Your task to perform on an android device: open chrome privacy settings Image 0: 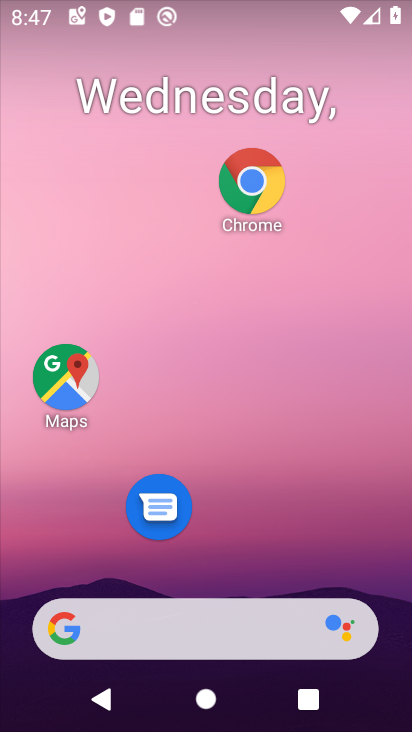
Step 0: drag from (336, 359) to (347, 173)
Your task to perform on an android device: open chrome privacy settings Image 1: 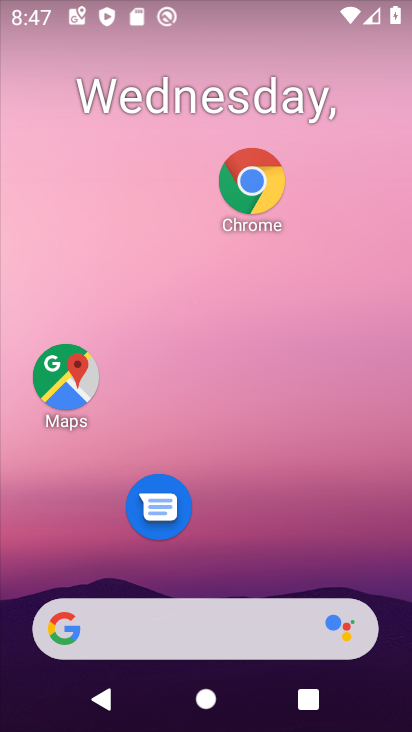
Step 1: click (251, 177)
Your task to perform on an android device: open chrome privacy settings Image 2: 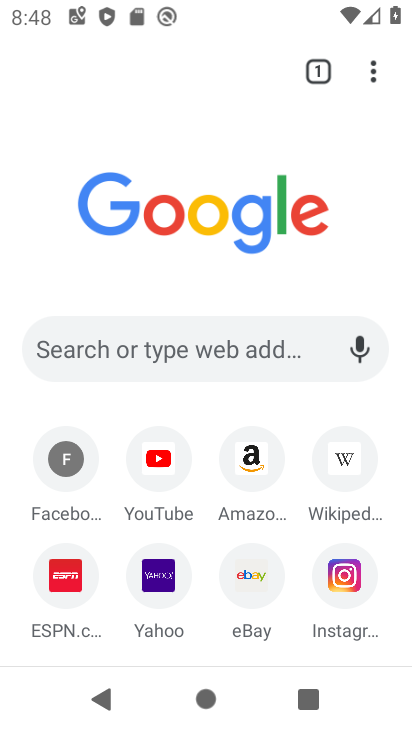
Step 2: click (375, 60)
Your task to perform on an android device: open chrome privacy settings Image 3: 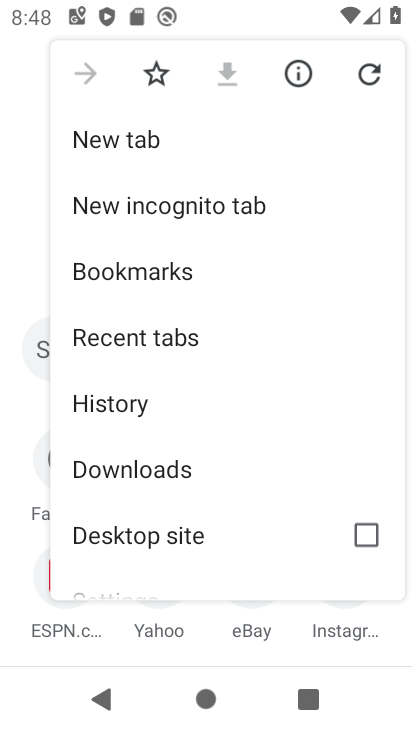
Step 3: drag from (242, 551) to (292, 15)
Your task to perform on an android device: open chrome privacy settings Image 4: 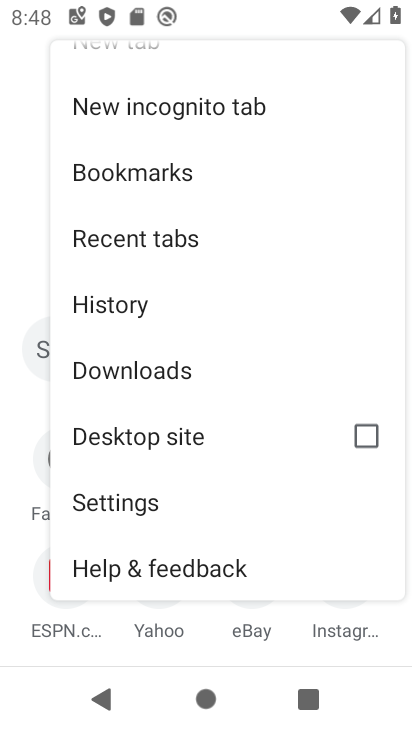
Step 4: click (196, 501)
Your task to perform on an android device: open chrome privacy settings Image 5: 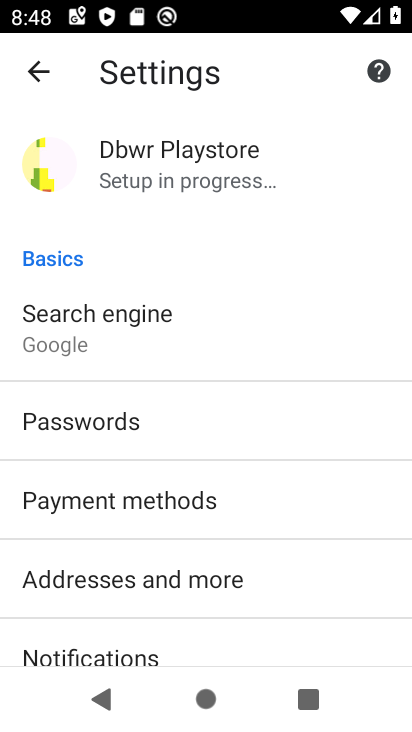
Step 5: drag from (204, 469) to (255, 171)
Your task to perform on an android device: open chrome privacy settings Image 6: 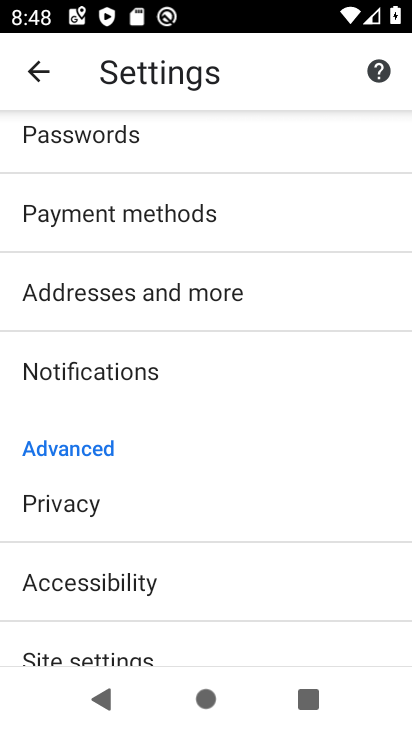
Step 6: drag from (217, 463) to (242, 290)
Your task to perform on an android device: open chrome privacy settings Image 7: 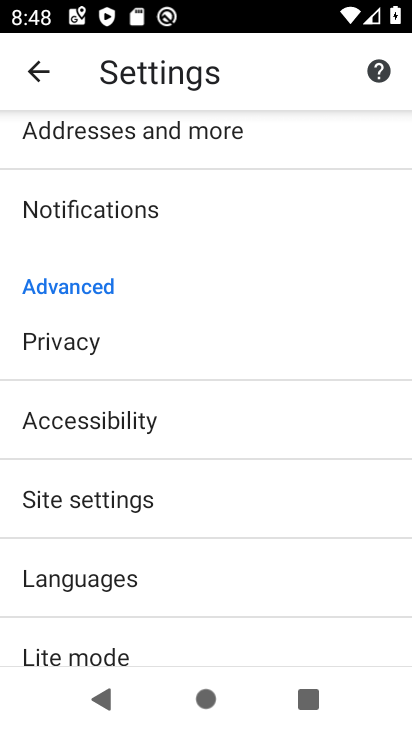
Step 7: click (134, 381)
Your task to perform on an android device: open chrome privacy settings Image 8: 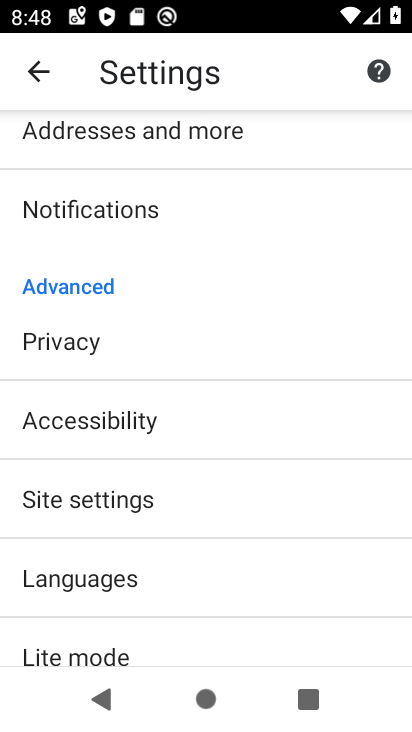
Step 8: click (110, 351)
Your task to perform on an android device: open chrome privacy settings Image 9: 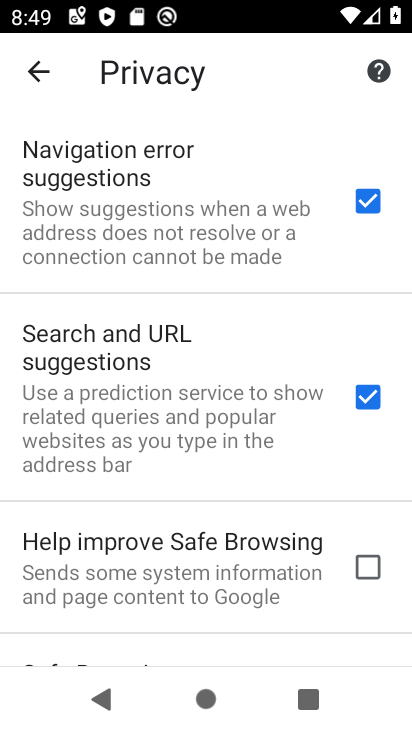
Step 9: task complete